Your task to perform on an android device: delete the emails in spam in the gmail app Image 0: 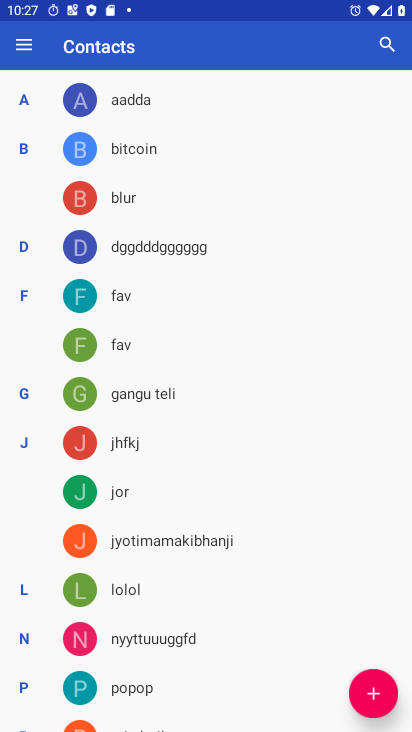
Step 0: press home button
Your task to perform on an android device: delete the emails in spam in the gmail app Image 1: 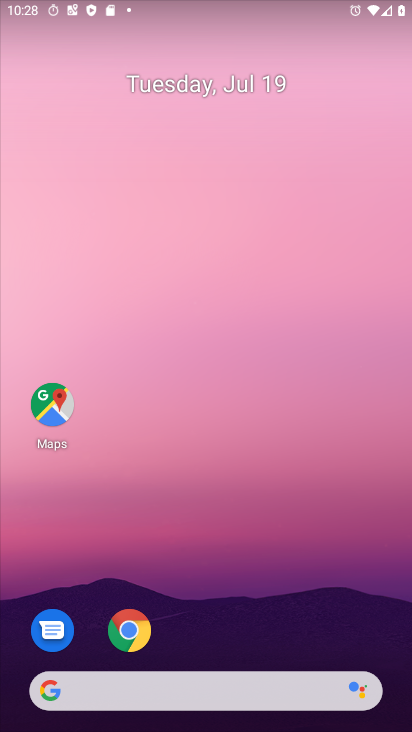
Step 1: drag from (267, 654) to (265, 101)
Your task to perform on an android device: delete the emails in spam in the gmail app Image 2: 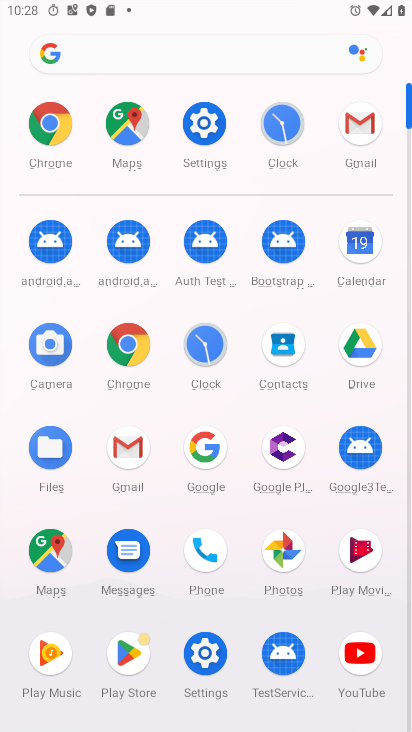
Step 2: click (362, 122)
Your task to perform on an android device: delete the emails in spam in the gmail app Image 3: 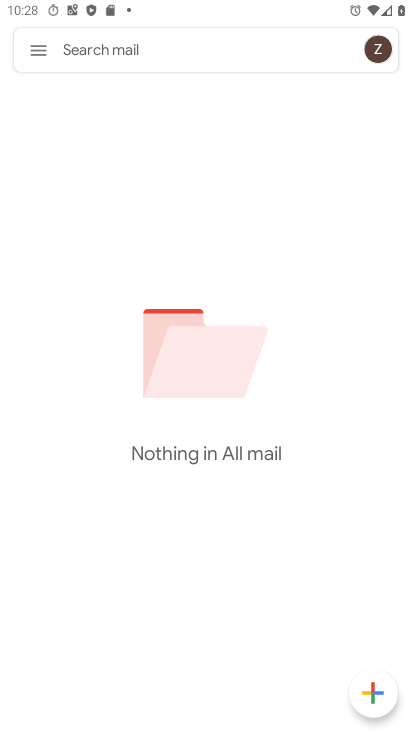
Step 3: click (36, 50)
Your task to perform on an android device: delete the emails in spam in the gmail app Image 4: 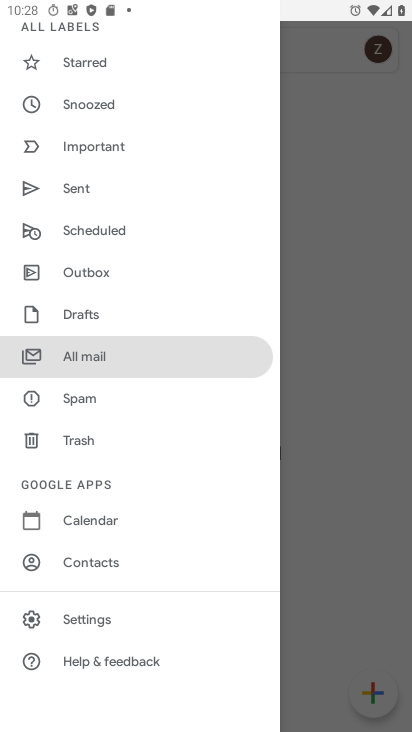
Step 4: click (86, 399)
Your task to perform on an android device: delete the emails in spam in the gmail app Image 5: 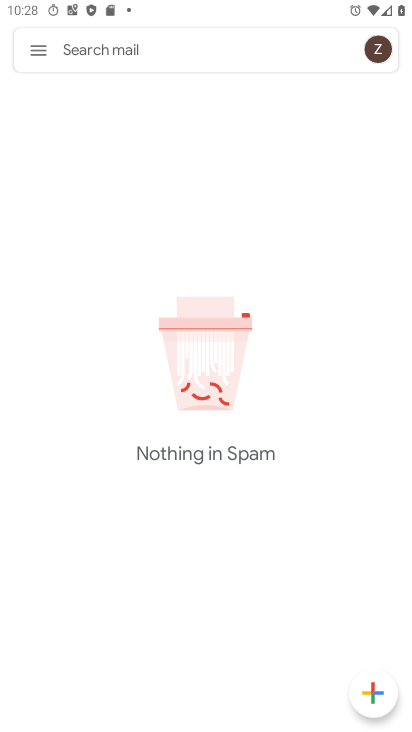
Step 5: task complete